Your task to perform on an android device: turn off data saver in the chrome app Image 0: 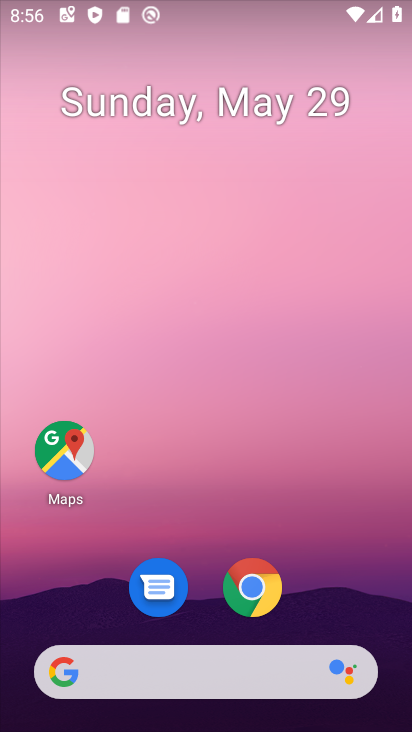
Step 0: click (244, 577)
Your task to perform on an android device: turn off data saver in the chrome app Image 1: 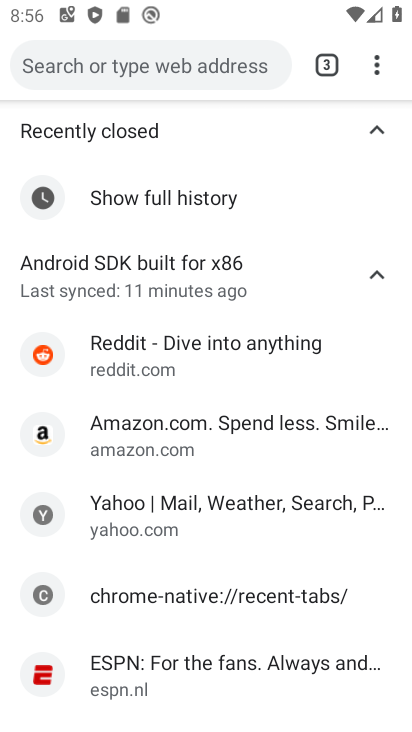
Step 1: drag from (375, 61) to (189, 547)
Your task to perform on an android device: turn off data saver in the chrome app Image 2: 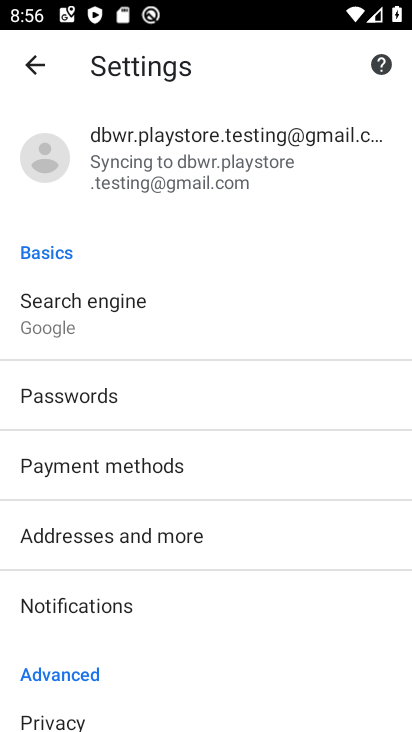
Step 2: drag from (142, 669) to (228, 211)
Your task to perform on an android device: turn off data saver in the chrome app Image 3: 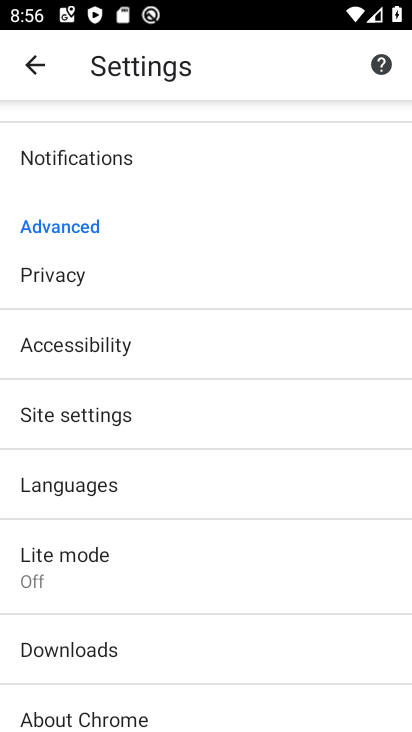
Step 3: click (110, 573)
Your task to perform on an android device: turn off data saver in the chrome app Image 4: 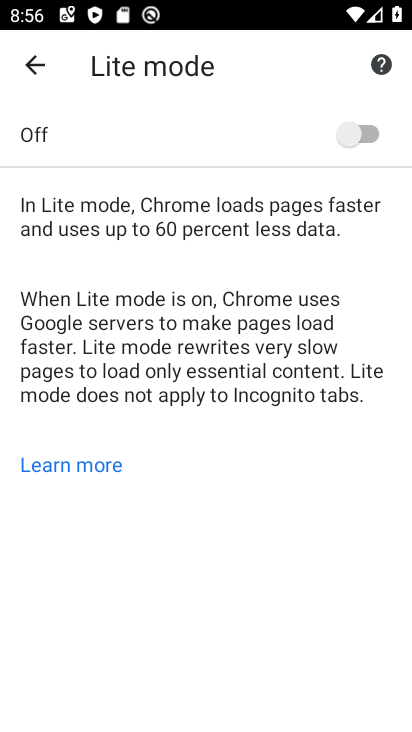
Step 4: task complete